Your task to perform on an android device: Add "razer blade" to the cart on target.com Image 0: 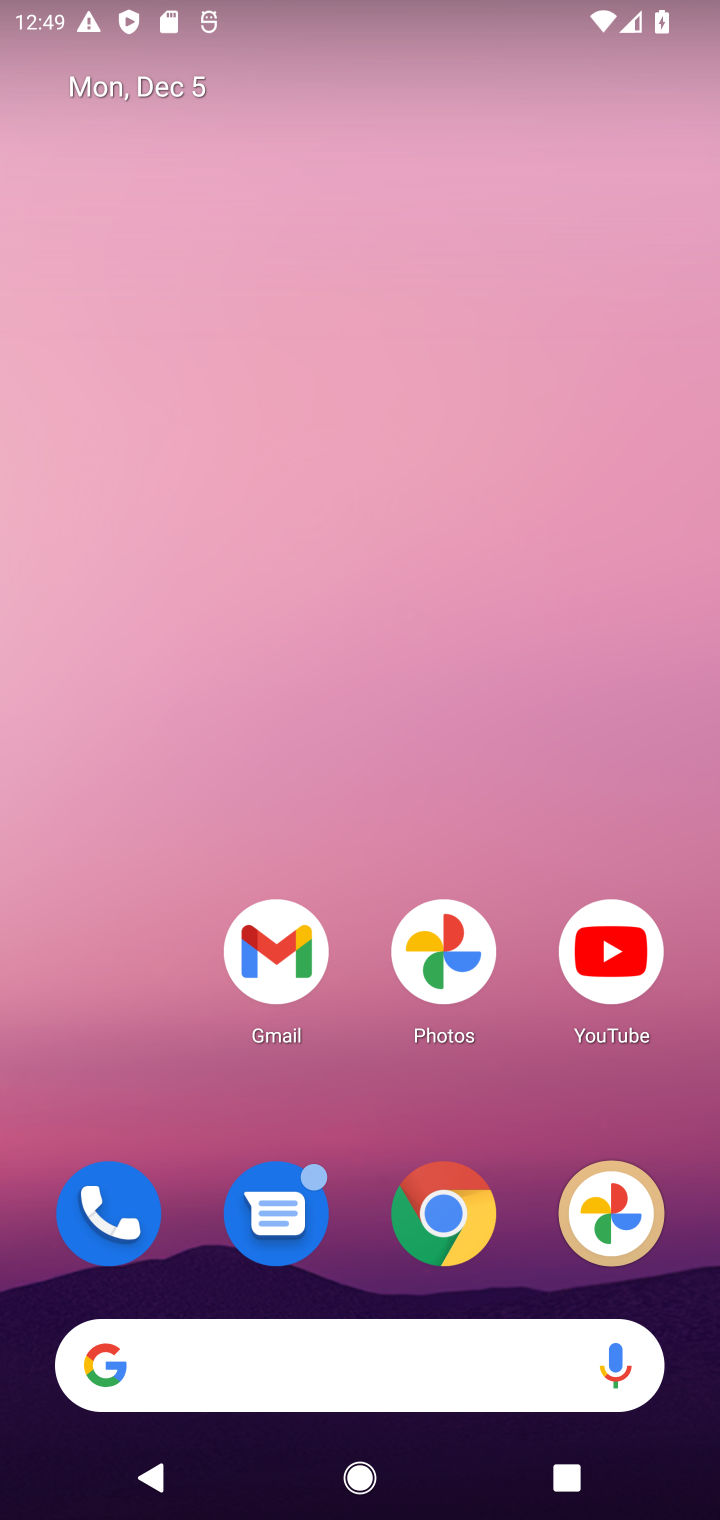
Step 0: click (441, 1215)
Your task to perform on an android device: Add "razer blade" to the cart on target.com Image 1: 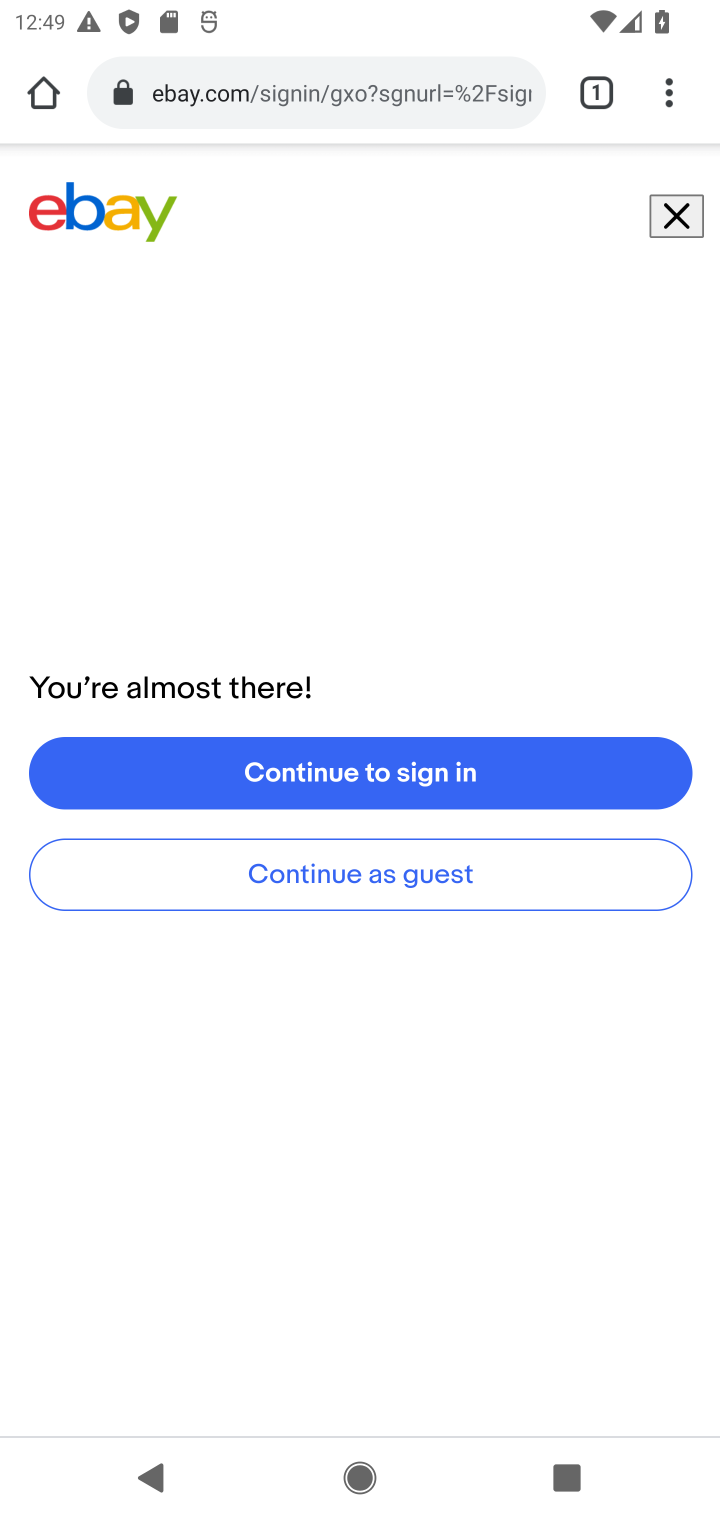
Step 1: click (317, 95)
Your task to perform on an android device: Add "razer blade" to the cart on target.com Image 2: 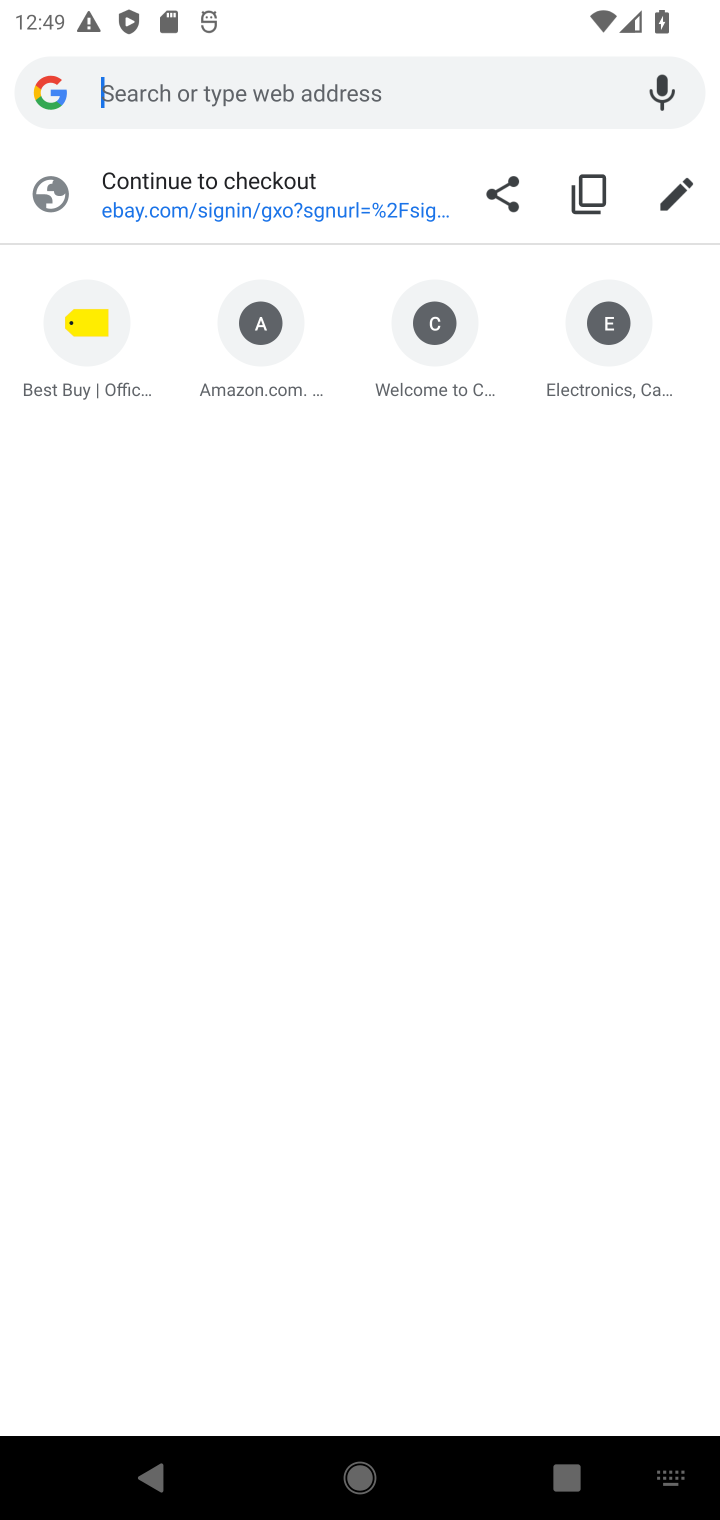
Step 2: type "target.com"
Your task to perform on an android device: Add "razer blade" to the cart on target.com Image 3: 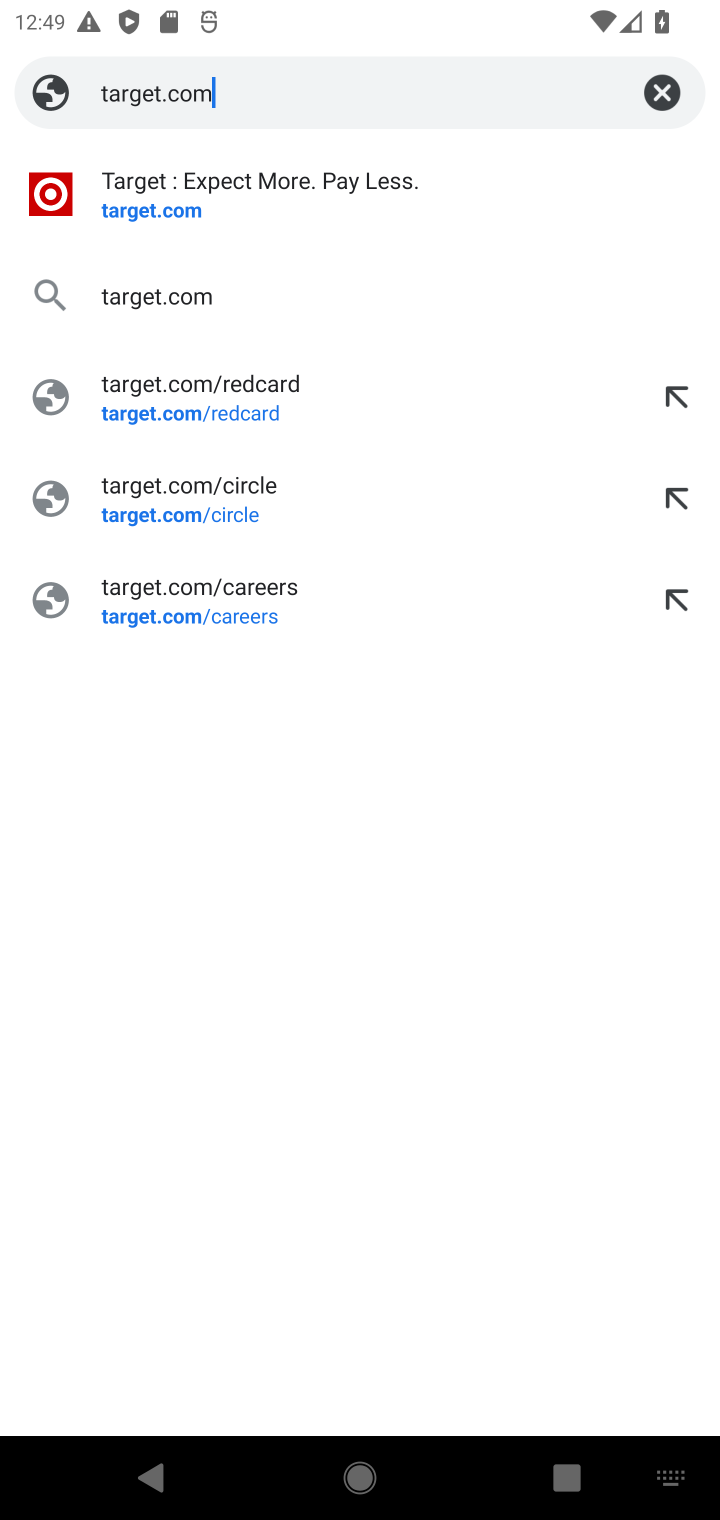
Step 3: click (145, 207)
Your task to perform on an android device: Add "razer blade" to the cart on target.com Image 4: 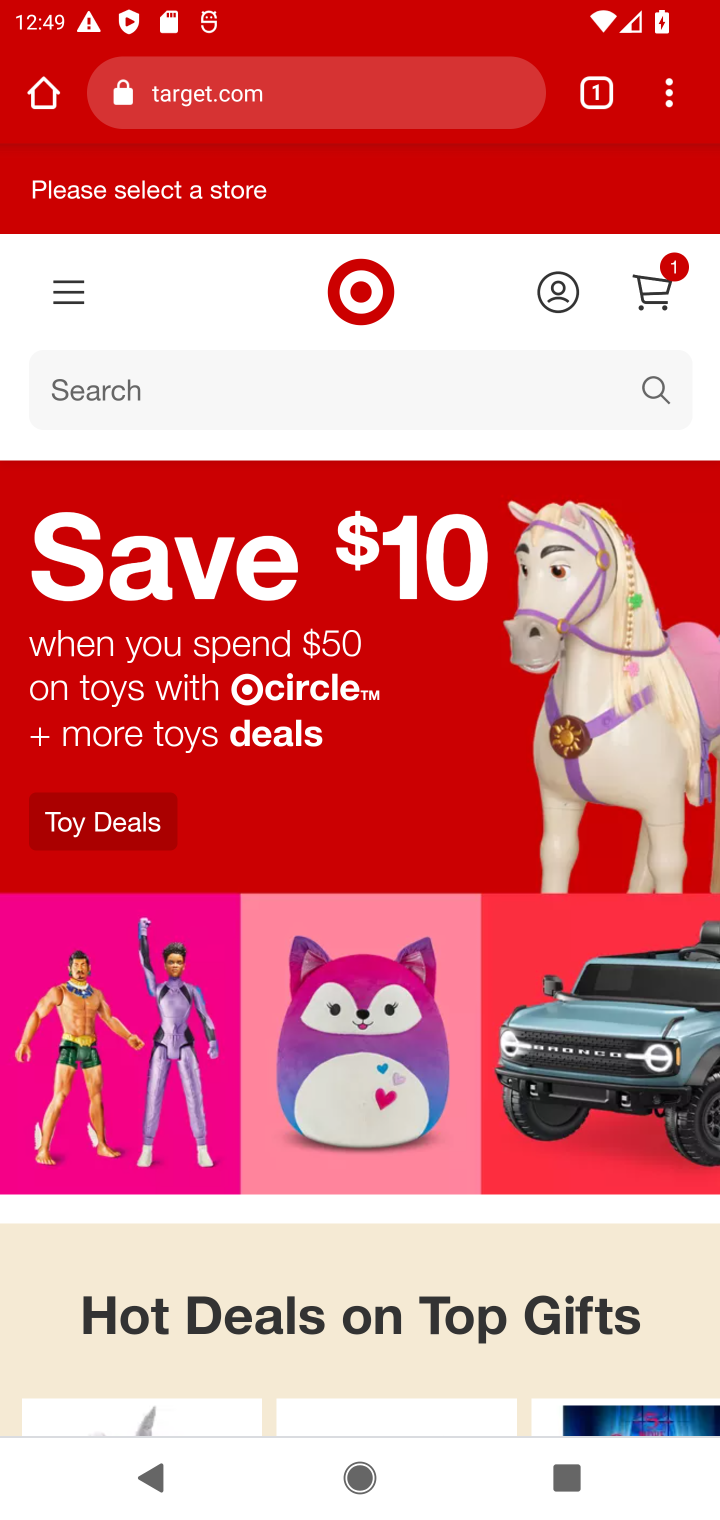
Step 4: click (147, 398)
Your task to perform on an android device: Add "razer blade" to the cart on target.com Image 5: 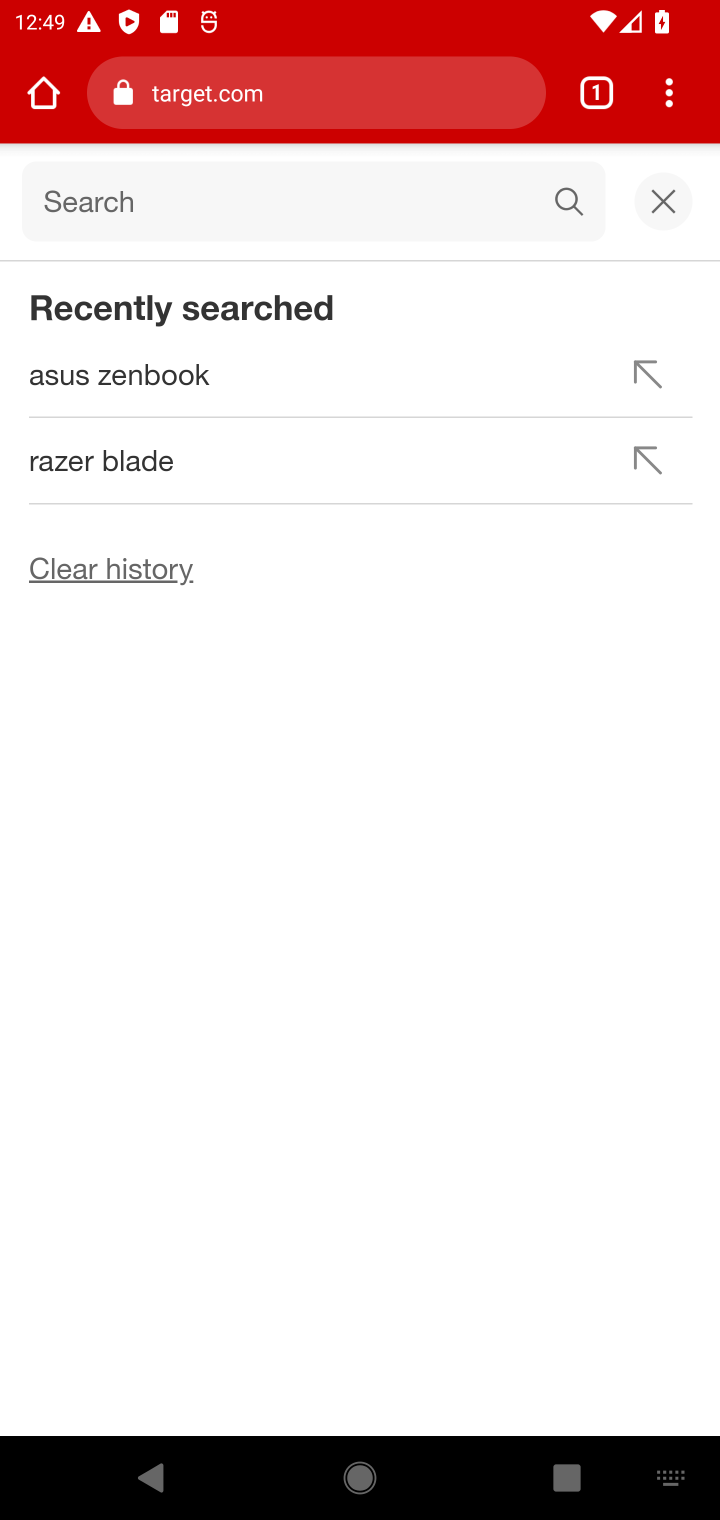
Step 5: type "razer blade"
Your task to perform on an android device: Add "razer blade" to the cart on target.com Image 6: 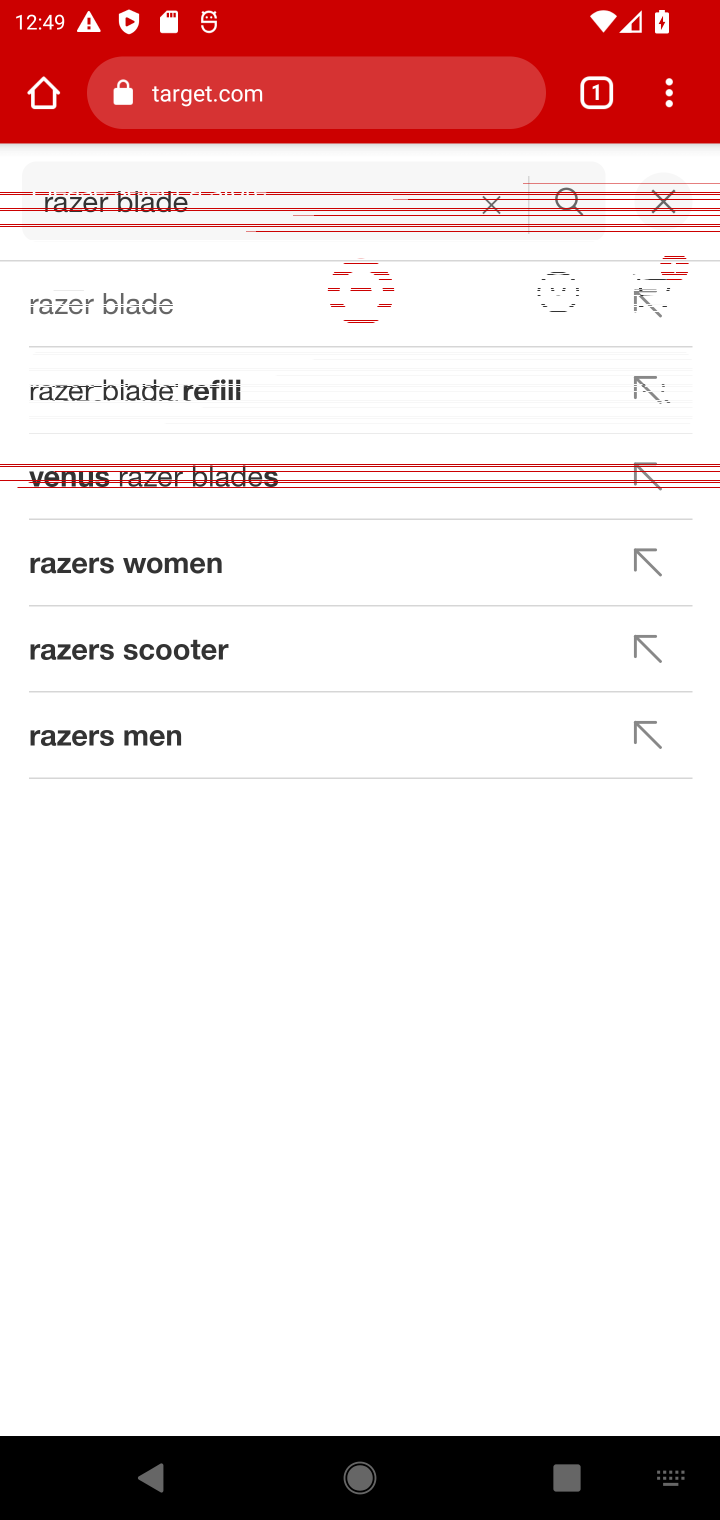
Step 6: click (141, 302)
Your task to perform on an android device: Add "razer blade" to the cart on target.com Image 7: 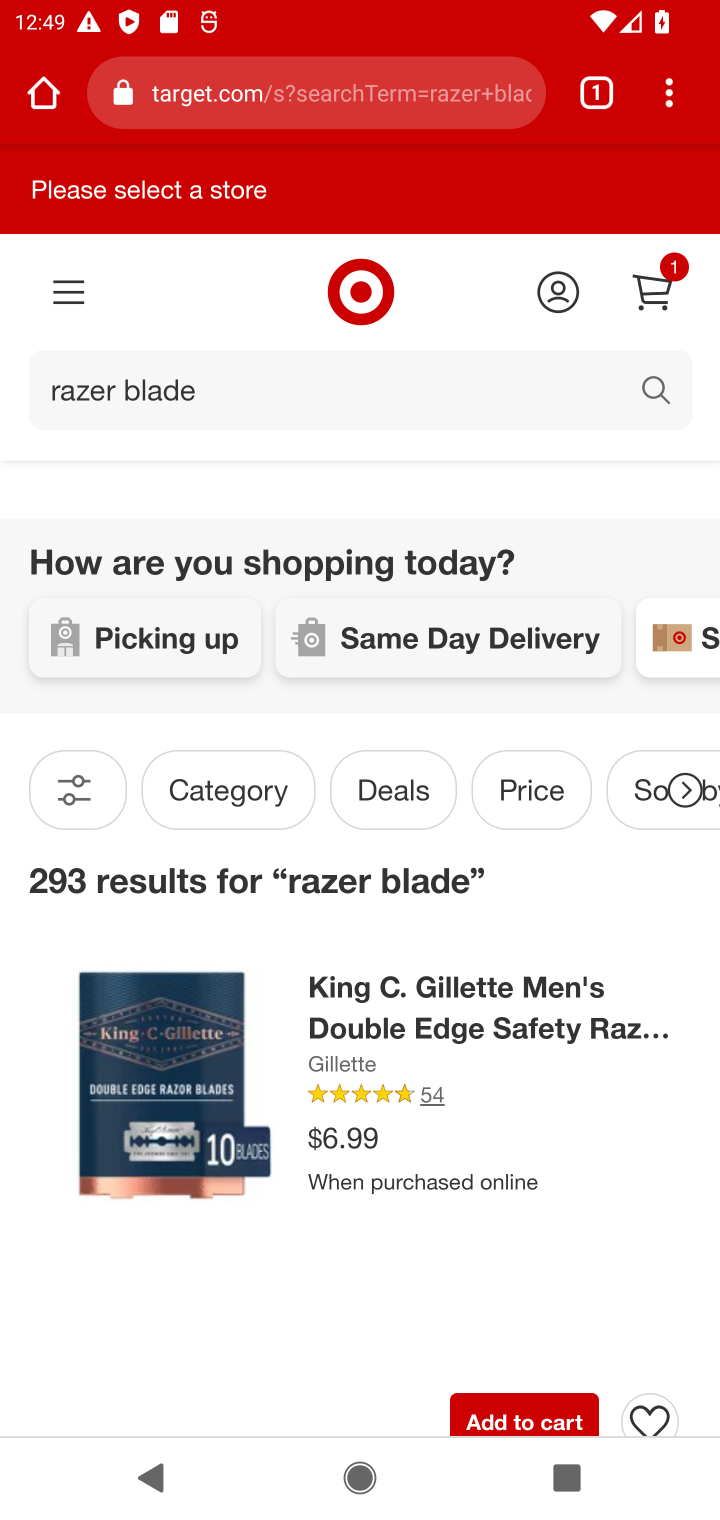
Step 7: task complete